Your task to perform on an android device: Open notification settings Image 0: 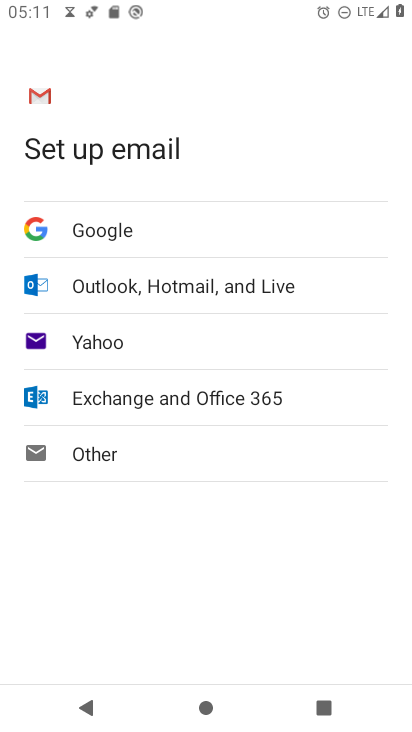
Step 0: press back button
Your task to perform on an android device: Open notification settings Image 1: 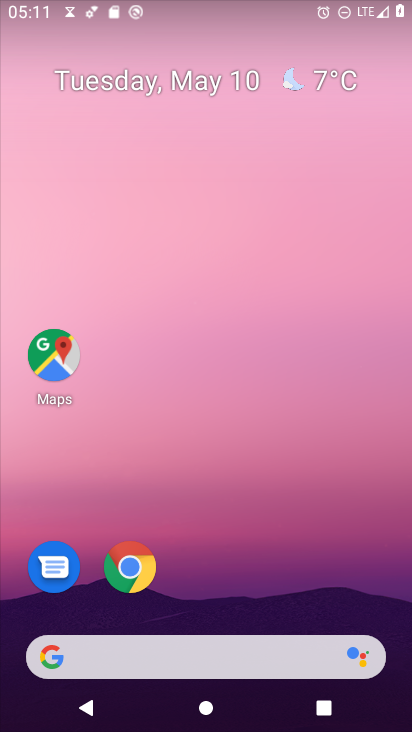
Step 1: press back button
Your task to perform on an android device: Open notification settings Image 2: 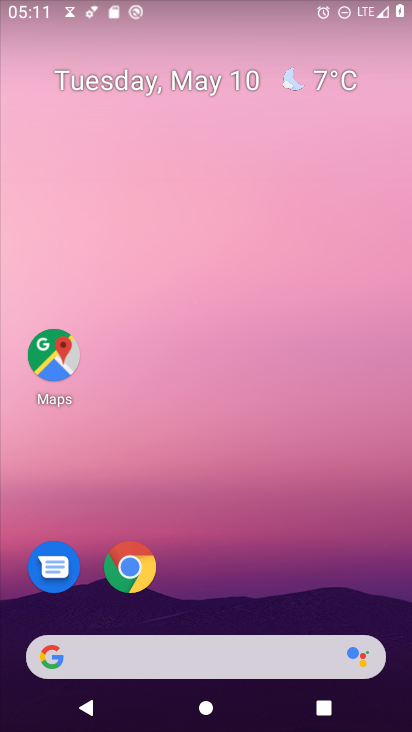
Step 2: press home button
Your task to perform on an android device: Open notification settings Image 3: 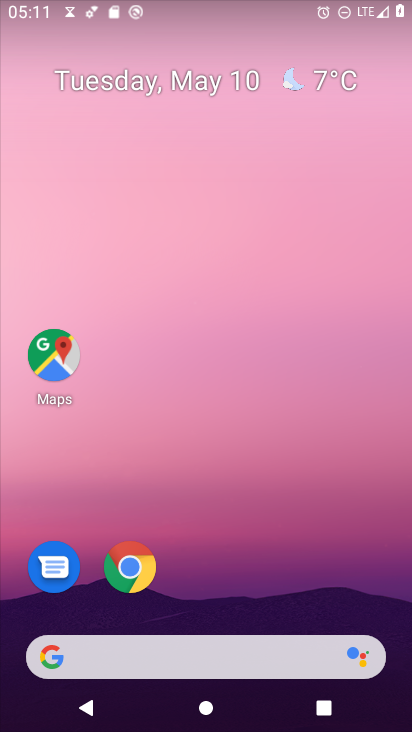
Step 3: drag from (288, 570) to (246, 164)
Your task to perform on an android device: Open notification settings Image 4: 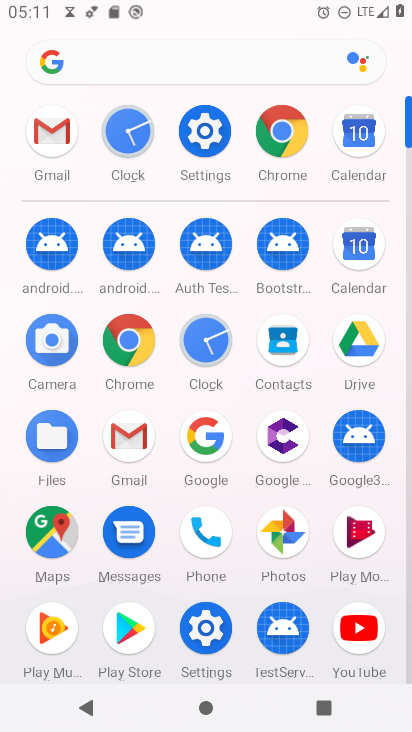
Step 4: click (205, 626)
Your task to perform on an android device: Open notification settings Image 5: 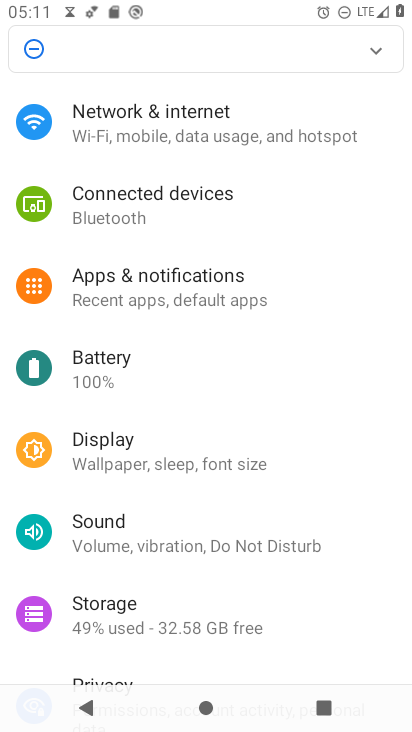
Step 5: click (194, 286)
Your task to perform on an android device: Open notification settings Image 6: 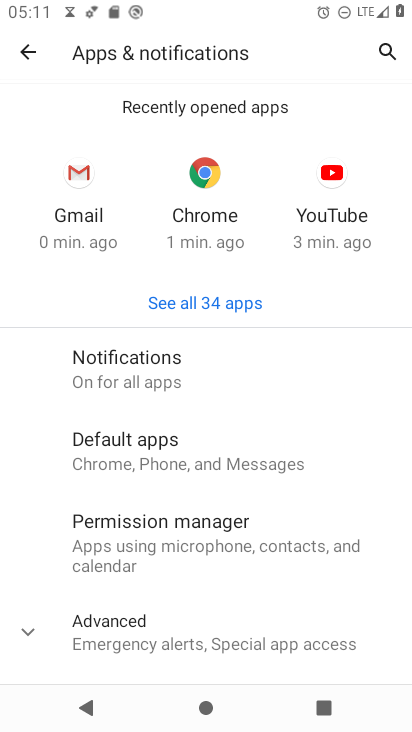
Step 6: click (152, 368)
Your task to perform on an android device: Open notification settings Image 7: 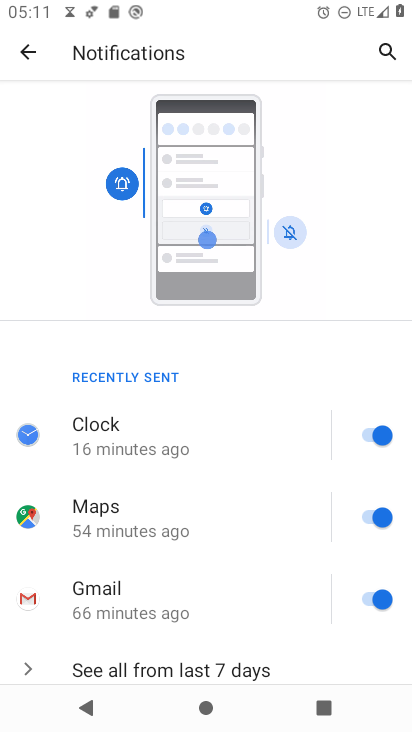
Step 7: task complete